Your task to perform on an android device: Open the calendar app, open the side menu, and click the "Day" option Image 0: 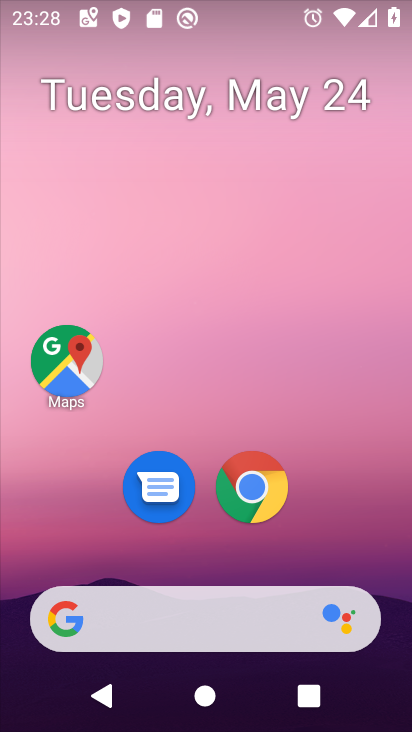
Step 0: drag from (194, 563) to (283, 89)
Your task to perform on an android device: Open the calendar app, open the side menu, and click the "Day" option Image 1: 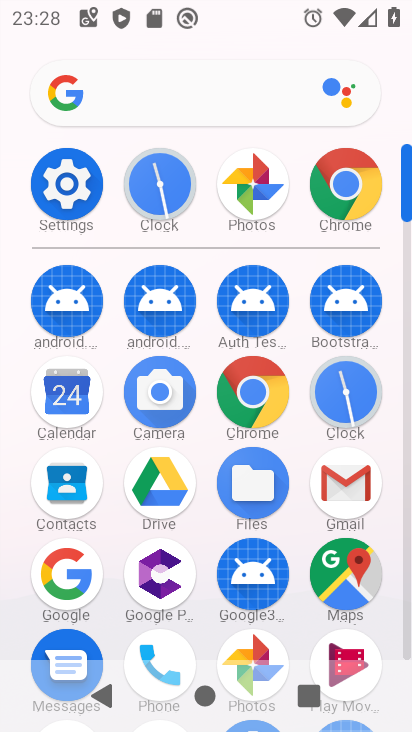
Step 1: click (73, 384)
Your task to perform on an android device: Open the calendar app, open the side menu, and click the "Day" option Image 2: 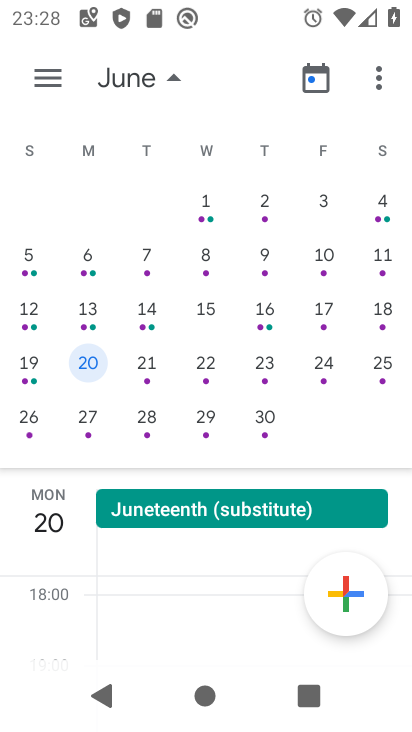
Step 2: click (51, 68)
Your task to perform on an android device: Open the calendar app, open the side menu, and click the "Day" option Image 3: 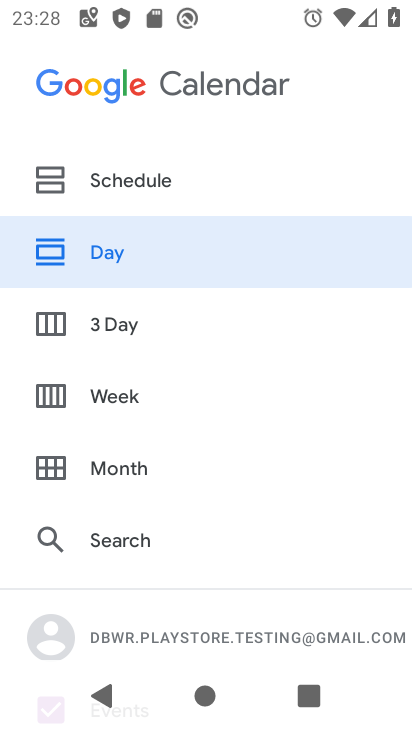
Step 3: click (137, 258)
Your task to perform on an android device: Open the calendar app, open the side menu, and click the "Day" option Image 4: 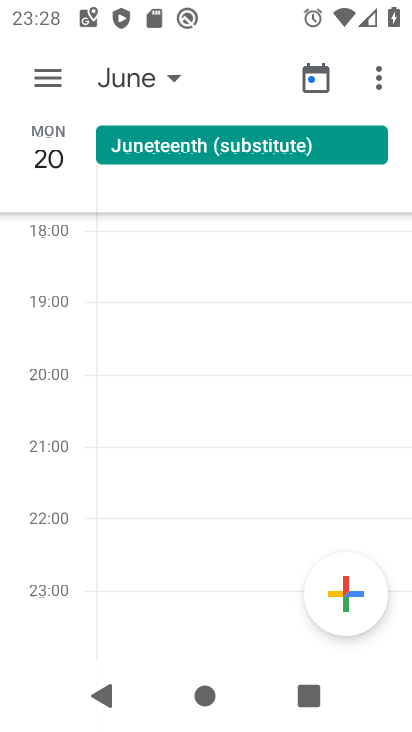
Step 4: task complete